Your task to perform on an android device: Go to location settings Image 0: 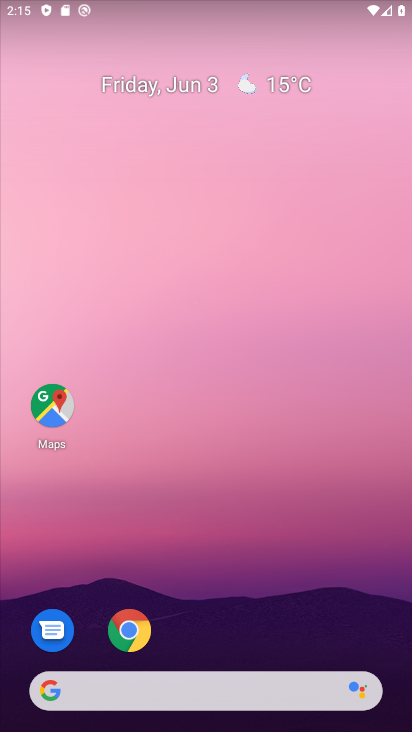
Step 0: press home button
Your task to perform on an android device: Go to location settings Image 1: 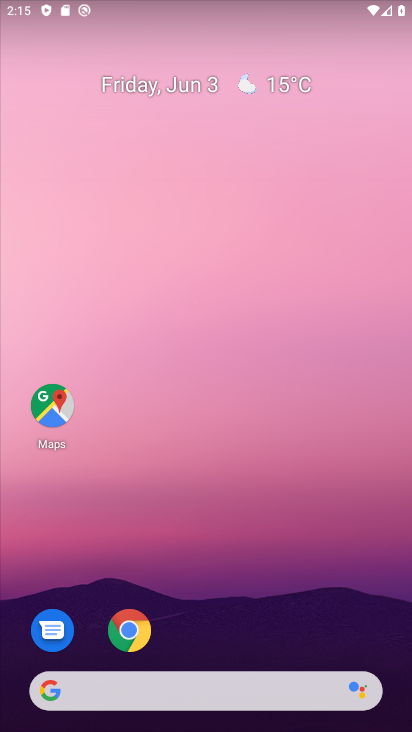
Step 1: drag from (305, 604) to (332, 76)
Your task to perform on an android device: Go to location settings Image 2: 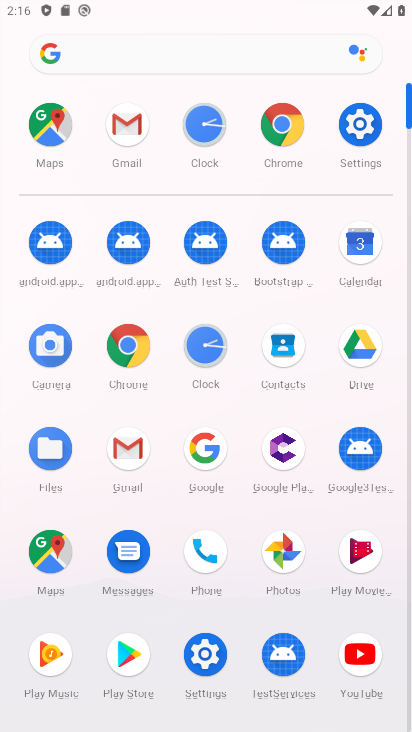
Step 2: click (212, 666)
Your task to perform on an android device: Go to location settings Image 3: 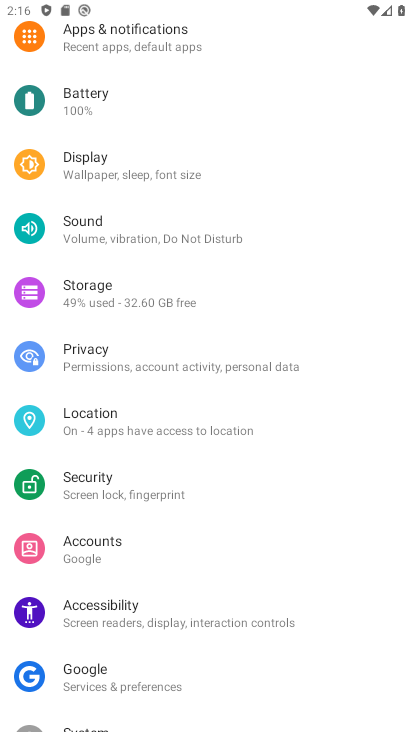
Step 3: drag from (193, 239) to (174, 382)
Your task to perform on an android device: Go to location settings Image 4: 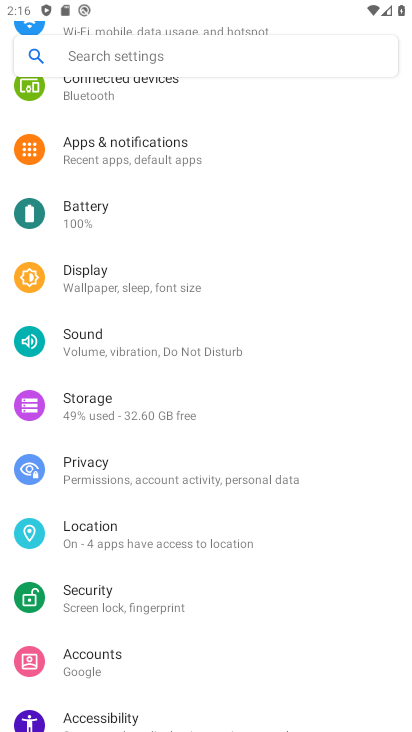
Step 4: click (127, 156)
Your task to perform on an android device: Go to location settings Image 5: 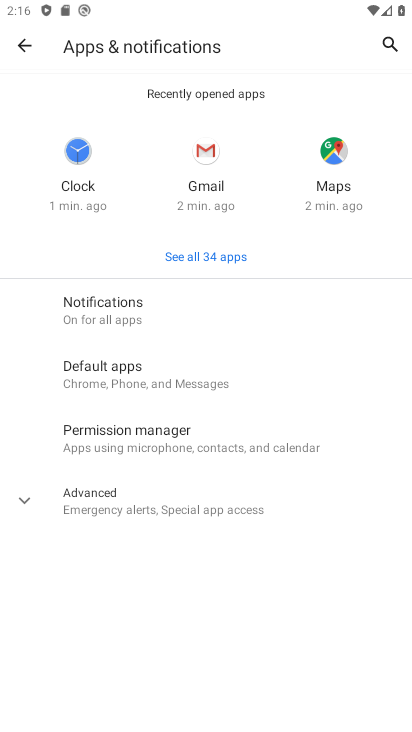
Step 5: click (23, 46)
Your task to perform on an android device: Go to location settings Image 6: 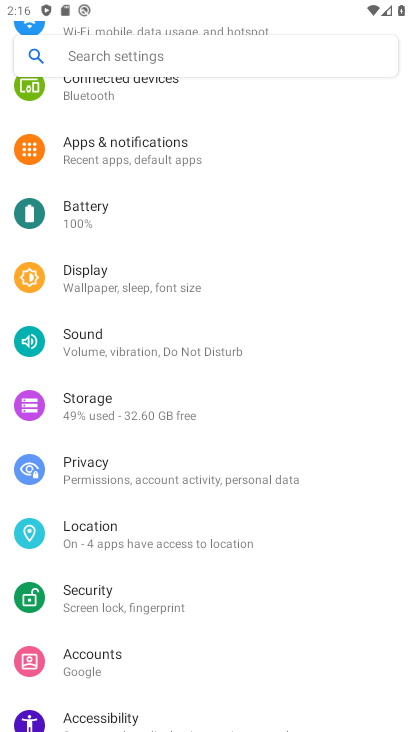
Step 6: drag from (146, 538) to (217, 181)
Your task to perform on an android device: Go to location settings Image 7: 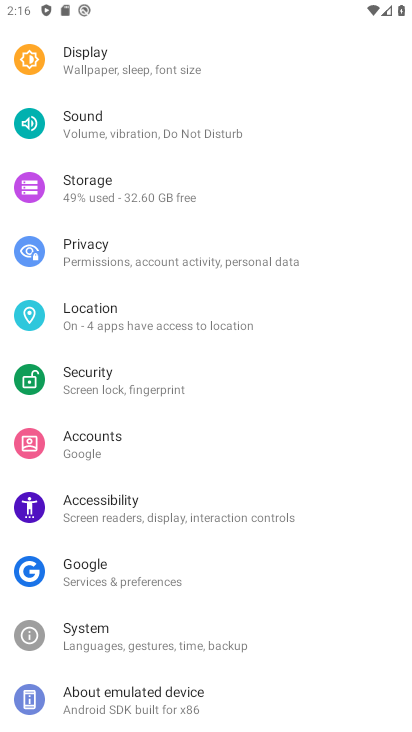
Step 7: drag from (123, 620) to (182, 421)
Your task to perform on an android device: Go to location settings Image 8: 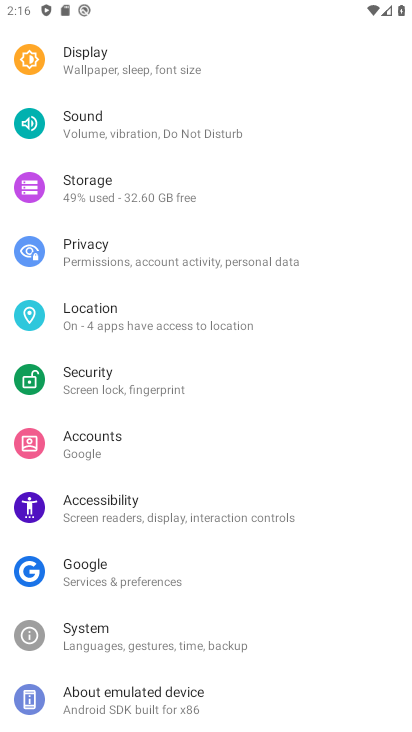
Step 8: click (173, 322)
Your task to perform on an android device: Go to location settings Image 9: 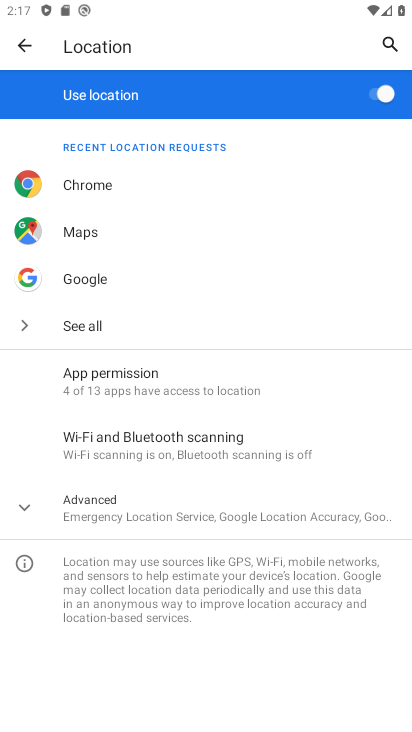
Step 9: task complete